Your task to perform on an android device: Go to location settings Image 0: 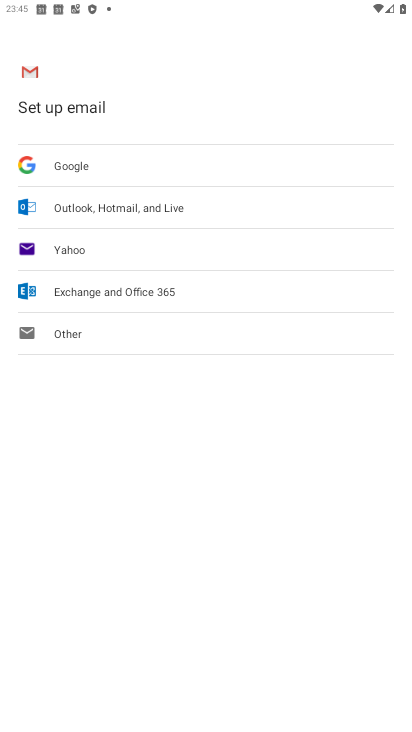
Step 0: press back button
Your task to perform on an android device: Go to location settings Image 1: 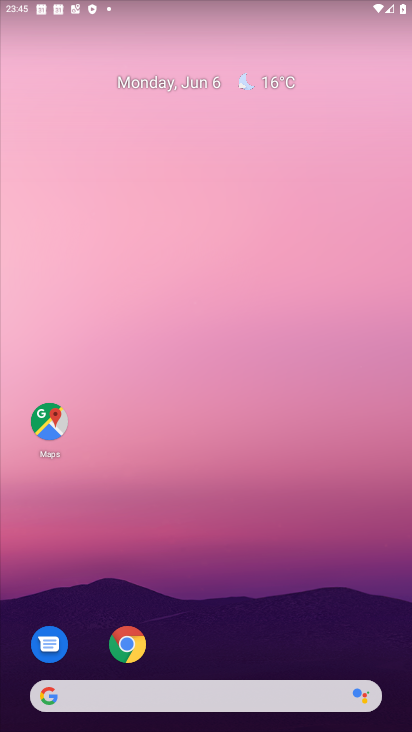
Step 1: drag from (306, 596) to (267, 27)
Your task to perform on an android device: Go to location settings Image 2: 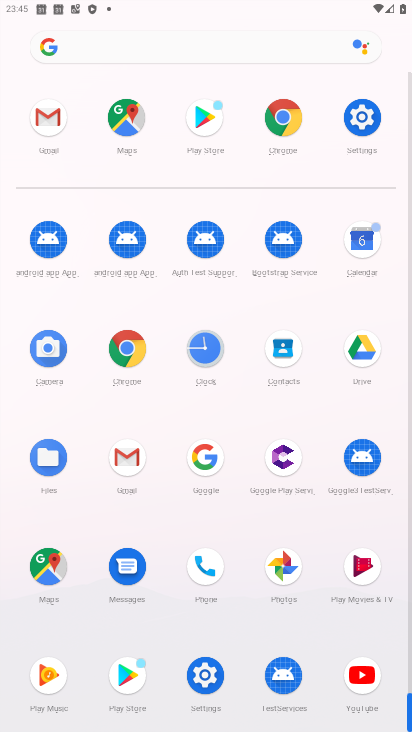
Step 2: click (203, 670)
Your task to perform on an android device: Go to location settings Image 3: 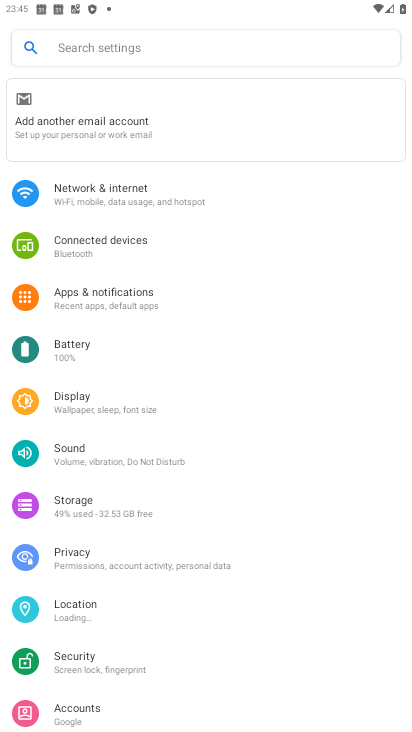
Step 3: click (111, 613)
Your task to perform on an android device: Go to location settings Image 4: 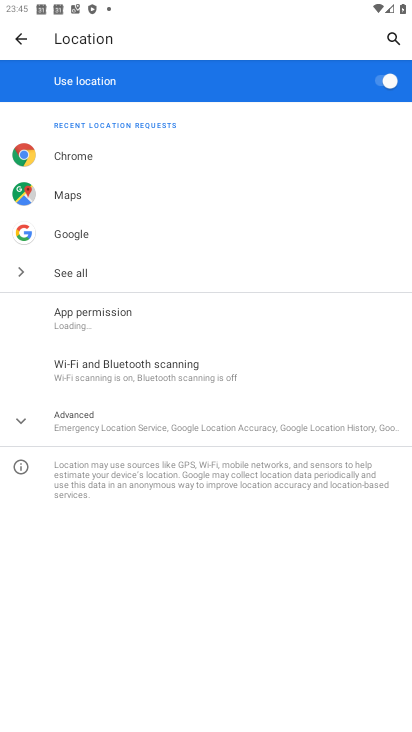
Step 4: click (29, 417)
Your task to perform on an android device: Go to location settings Image 5: 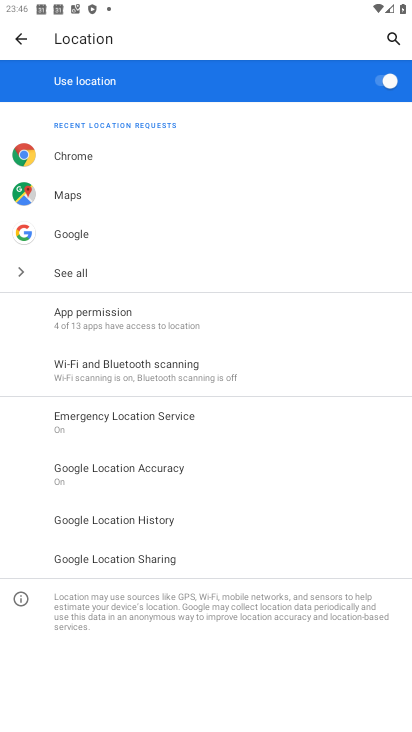
Step 5: task complete